Your task to perform on an android device: Go to CNN.com Image 0: 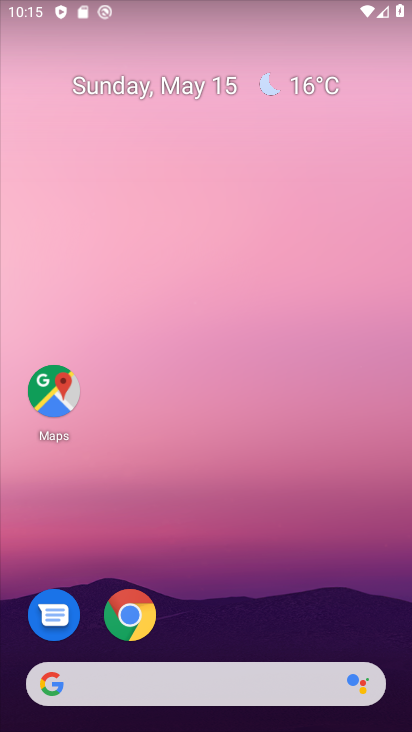
Step 0: drag from (253, 624) to (306, 88)
Your task to perform on an android device: Go to CNN.com Image 1: 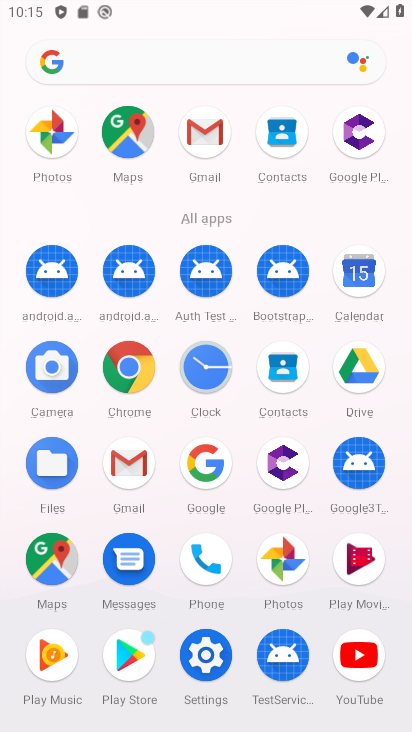
Step 1: click (139, 376)
Your task to perform on an android device: Go to CNN.com Image 2: 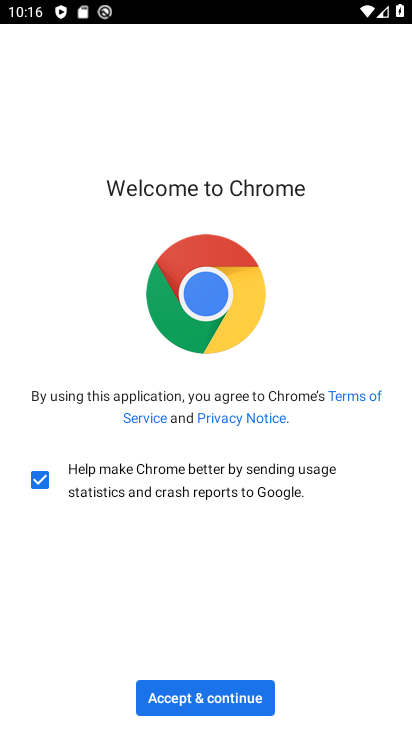
Step 2: click (209, 692)
Your task to perform on an android device: Go to CNN.com Image 3: 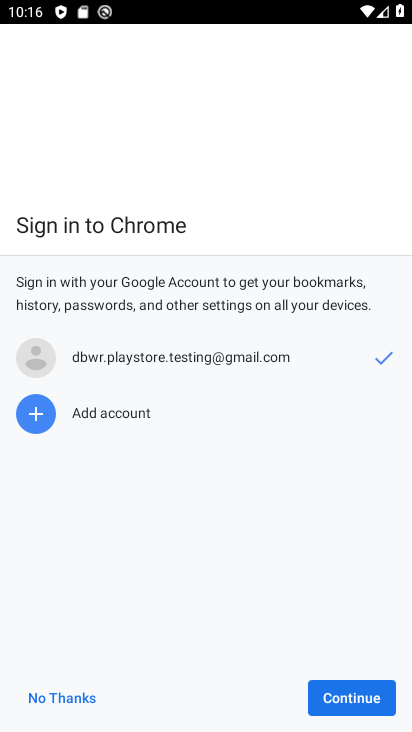
Step 3: click (339, 694)
Your task to perform on an android device: Go to CNN.com Image 4: 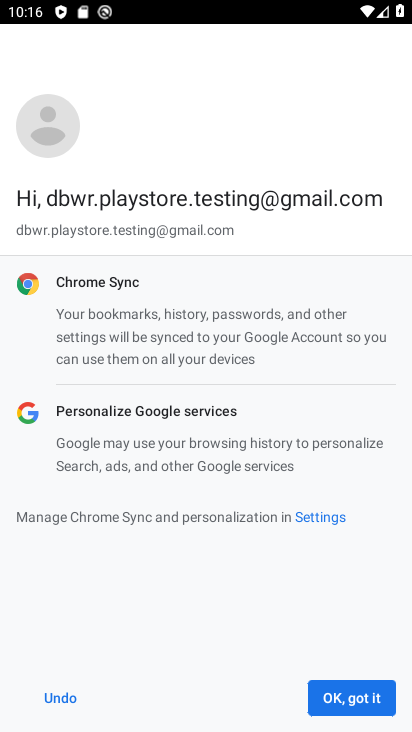
Step 4: click (55, 700)
Your task to perform on an android device: Go to CNN.com Image 5: 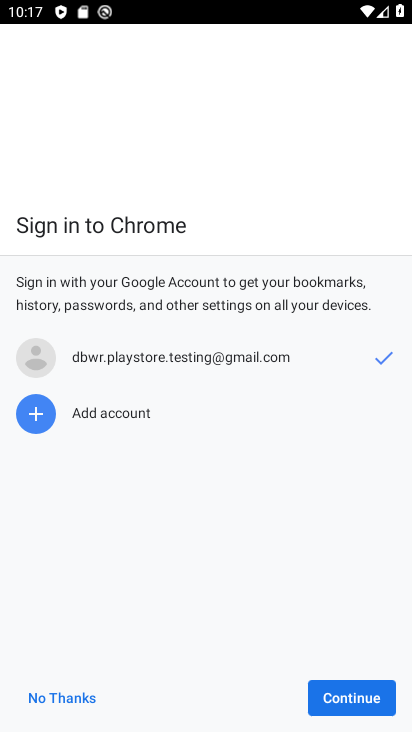
Step 5: click (55, 696)
Your task to perform on an android device: Go to CNN.com Image 6: 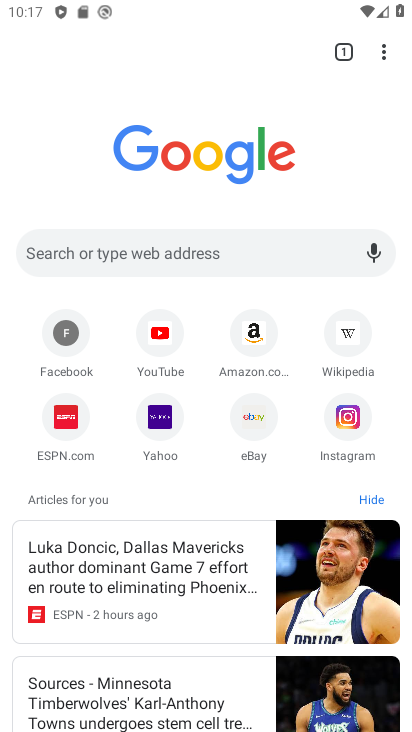
Step 6: click (54, 245)
Your task to perform on an android device: Go to CNN.com Image 7: 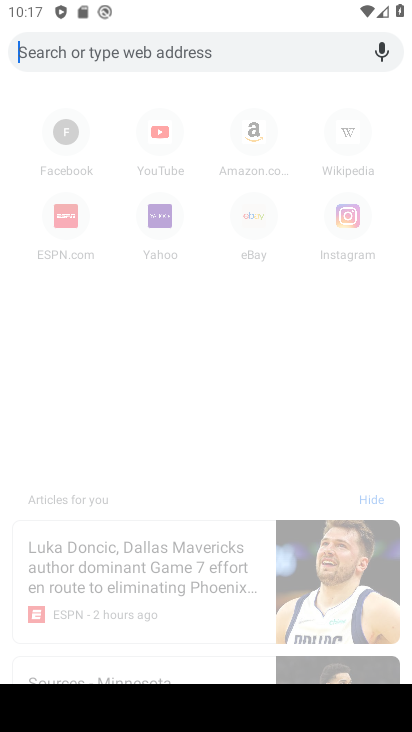
Step 7: type "cnn.com"
Your task to perform on an android device: Go to CNN.com Image 8: 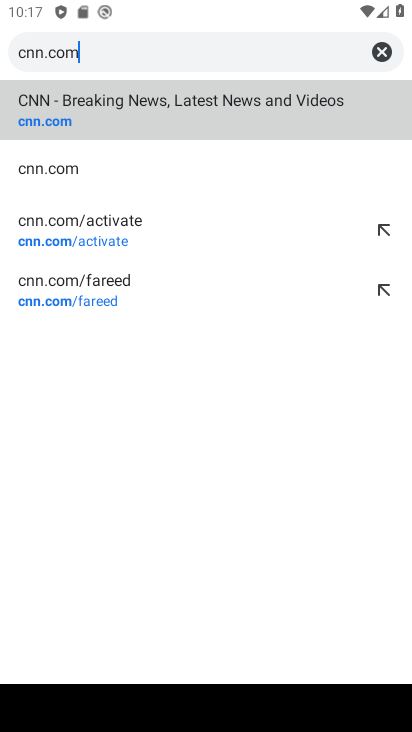
Step 8: click (311, 95)
Your task to perform on an android device: Go to CNN.com Image 9: 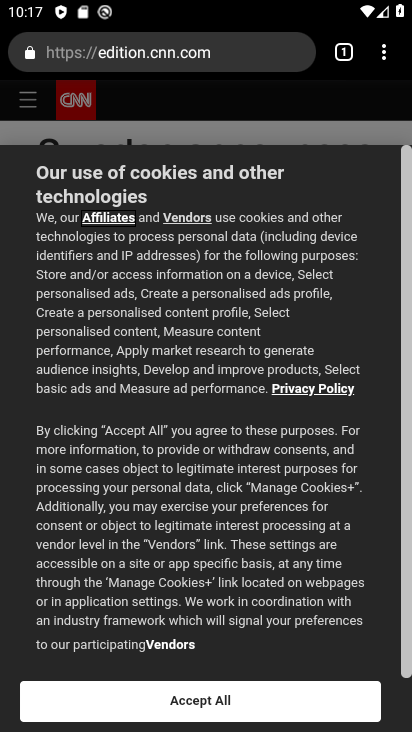
Step 9: task complete